Your task to perform on an android device: open app "Fetch Rewards" Image 0: 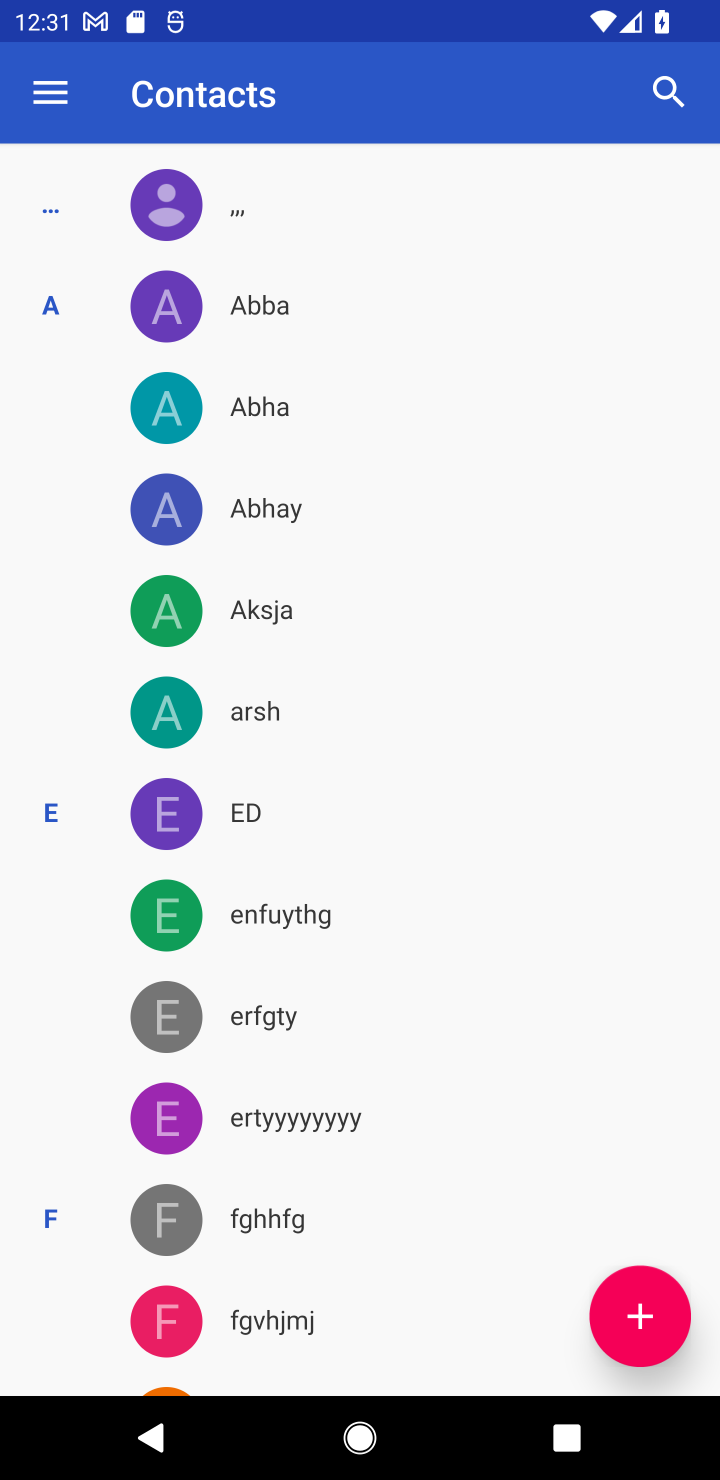
Step 0: press home button
Your task to perform on an android device: open app "Fetch Rewards" Image 1: 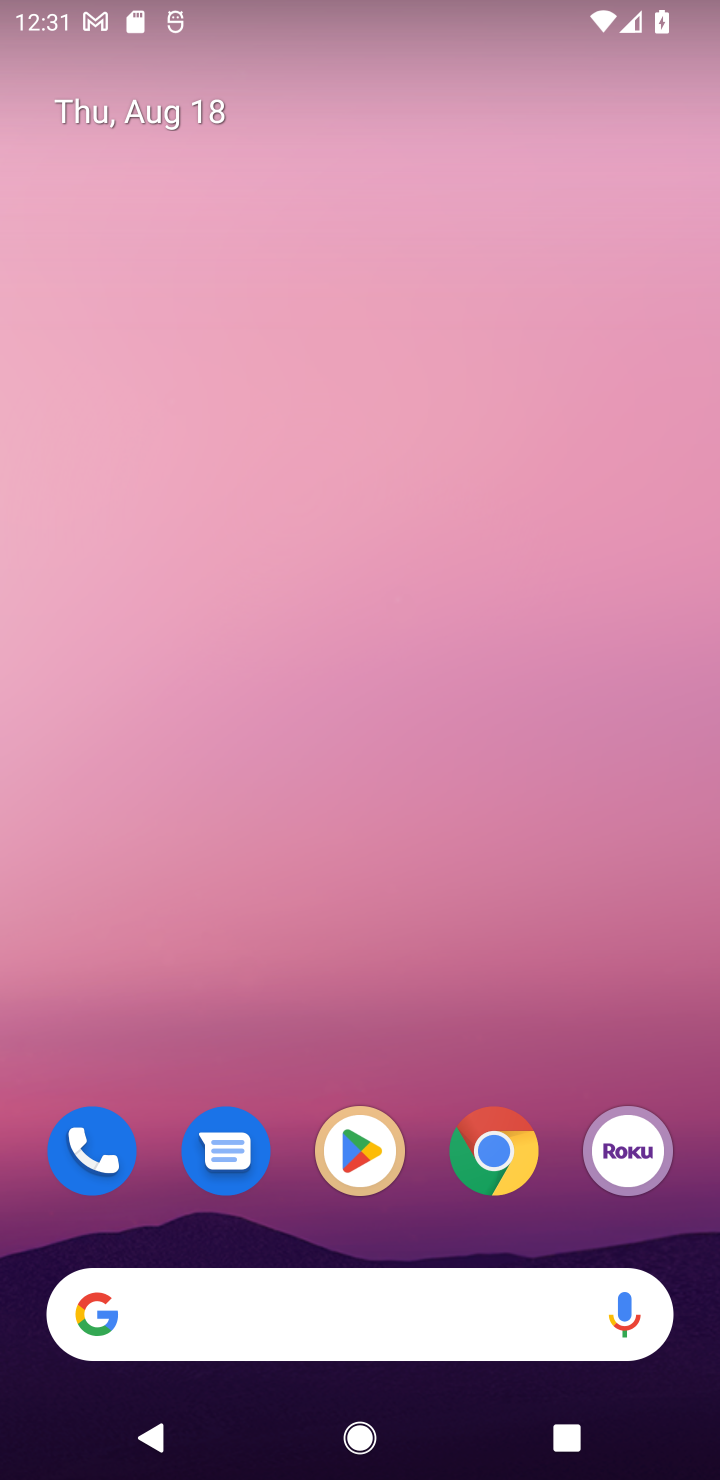
Step 1: click (347, 1152)
Your task to perform on an android device: open app "Fetch Rewards" Image 2: 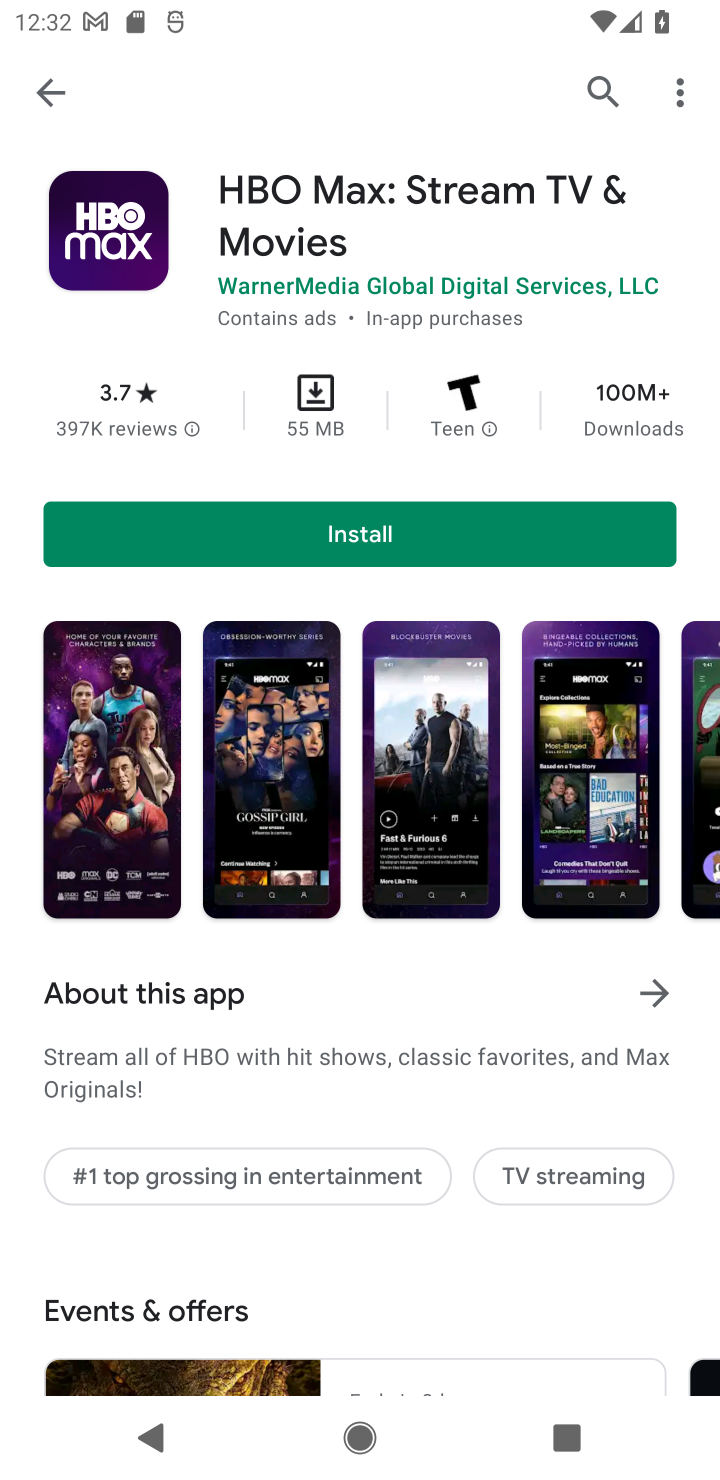
Step 2: click (52, 89)
Your task to perform on an android device: open app "Fetch Rewards" Image 3: 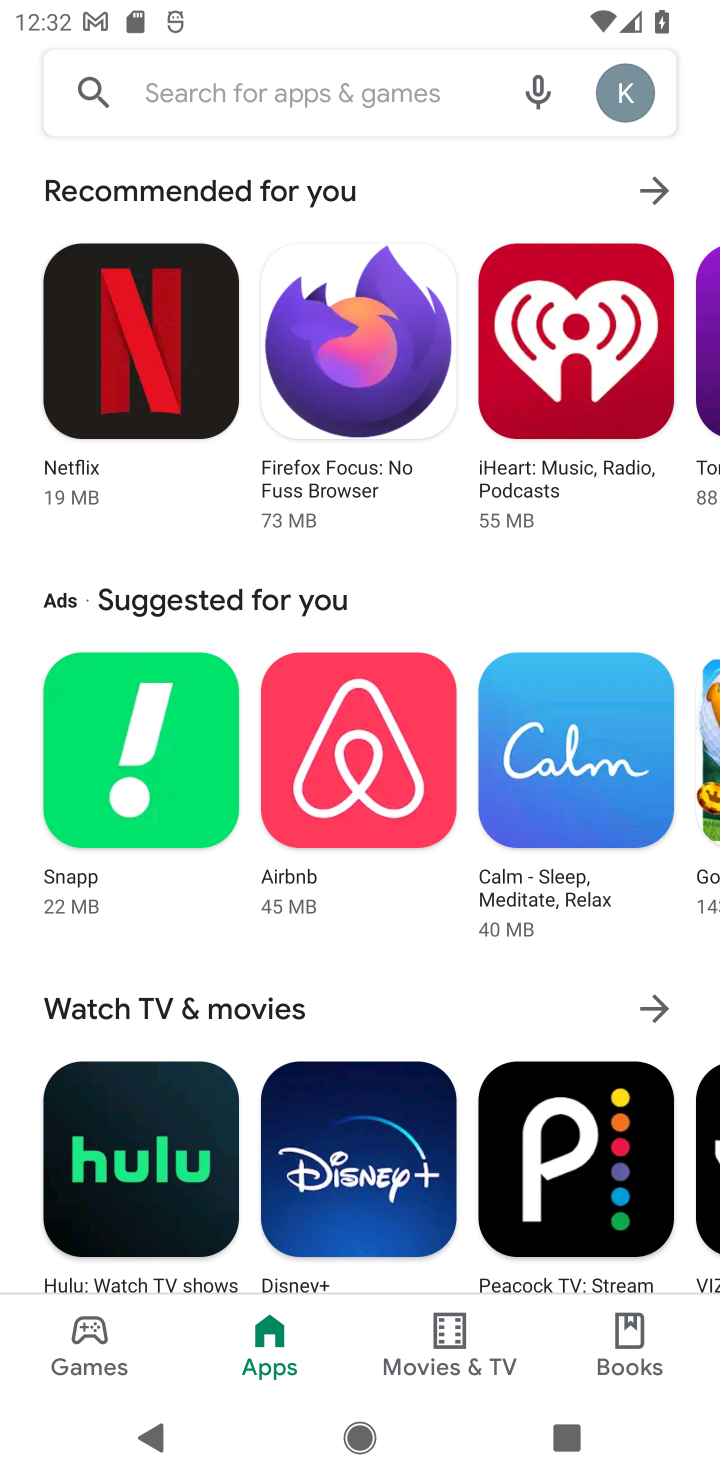
Step 3: click (171, 85)
Your task to perform on an android device: open app "Fetch Rewards" Image 4: 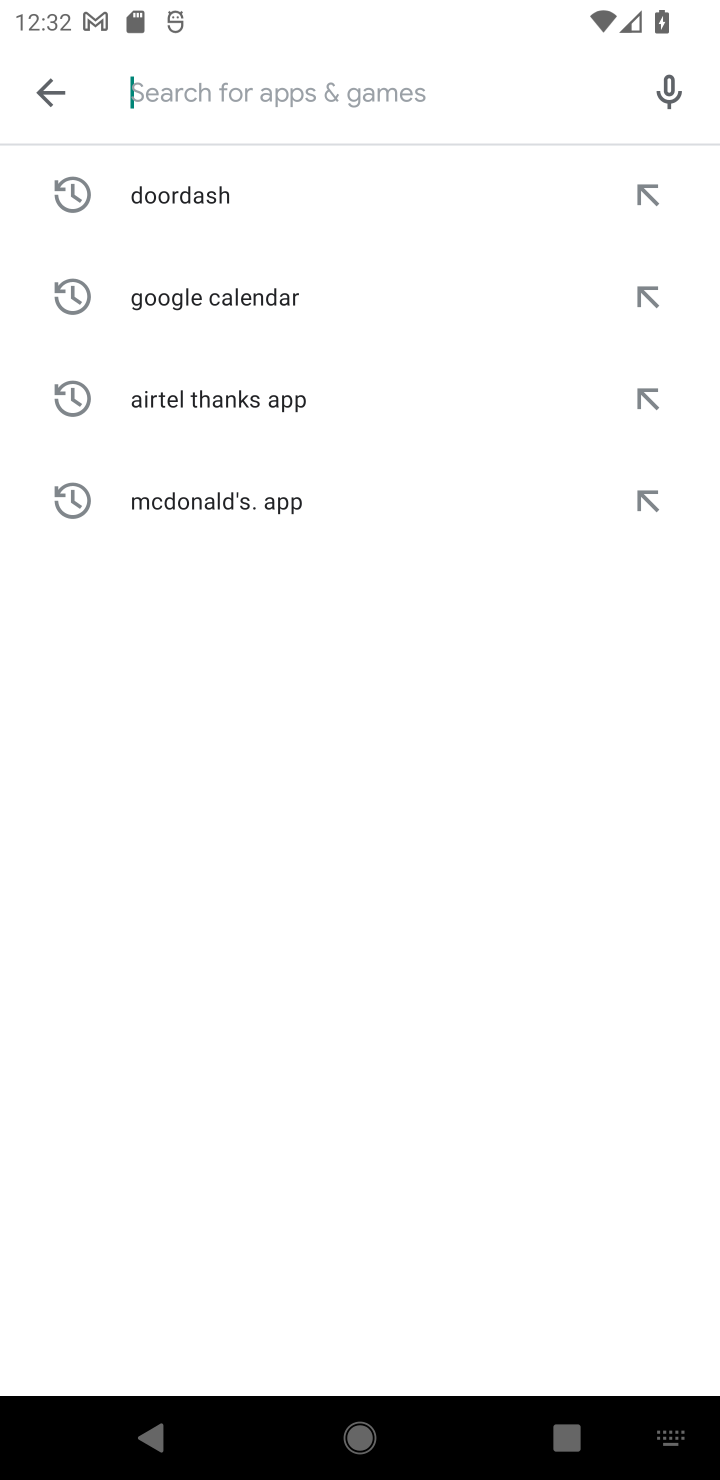
Step 4: type "Fetch Rewards"
Your task to perform on an android device: open app "Fetch Rewards" Image 5: 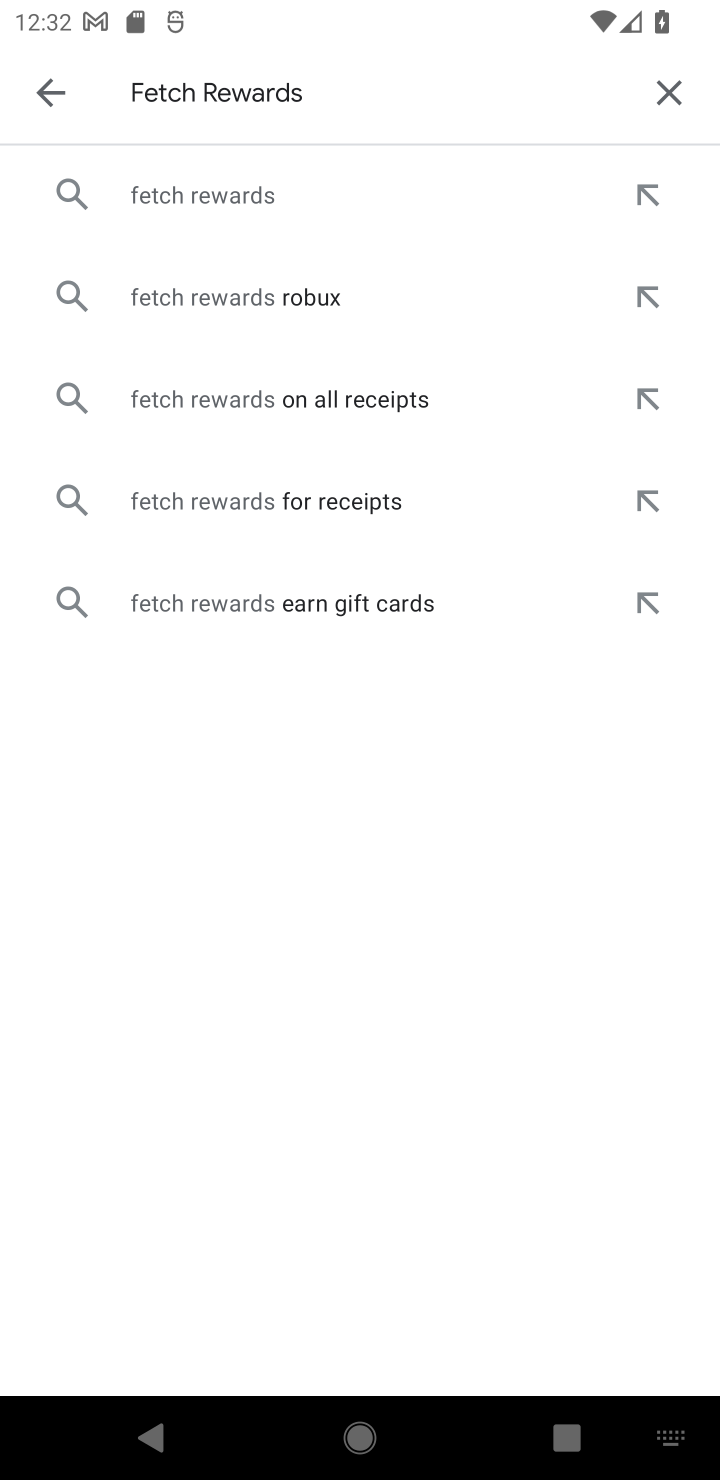
Step 5: click (259, 189)
Your task to perform on an android device: open app "Fetch Rewards" Image 6: 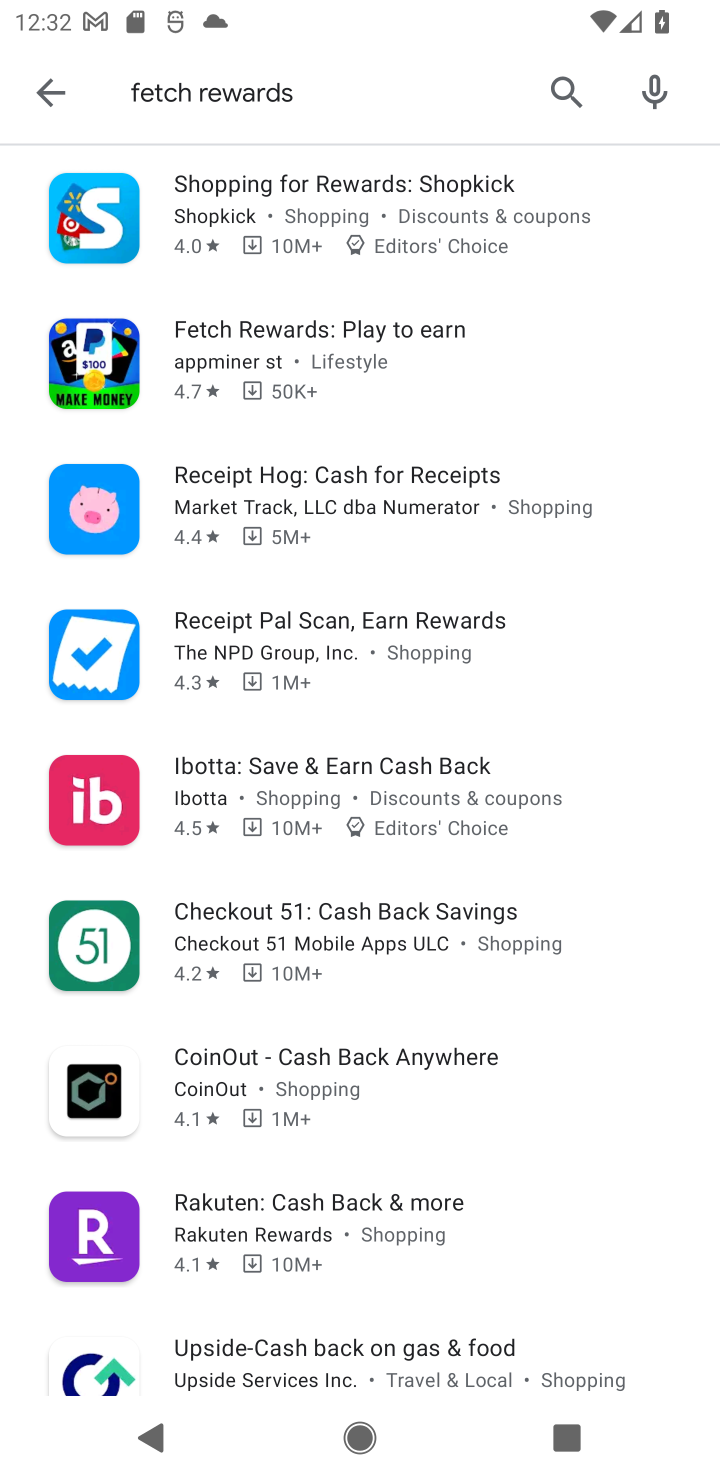
Step 6: click (214, 346)
Your task to perform on an android device: open app "Fetch Rewards" Image 7: 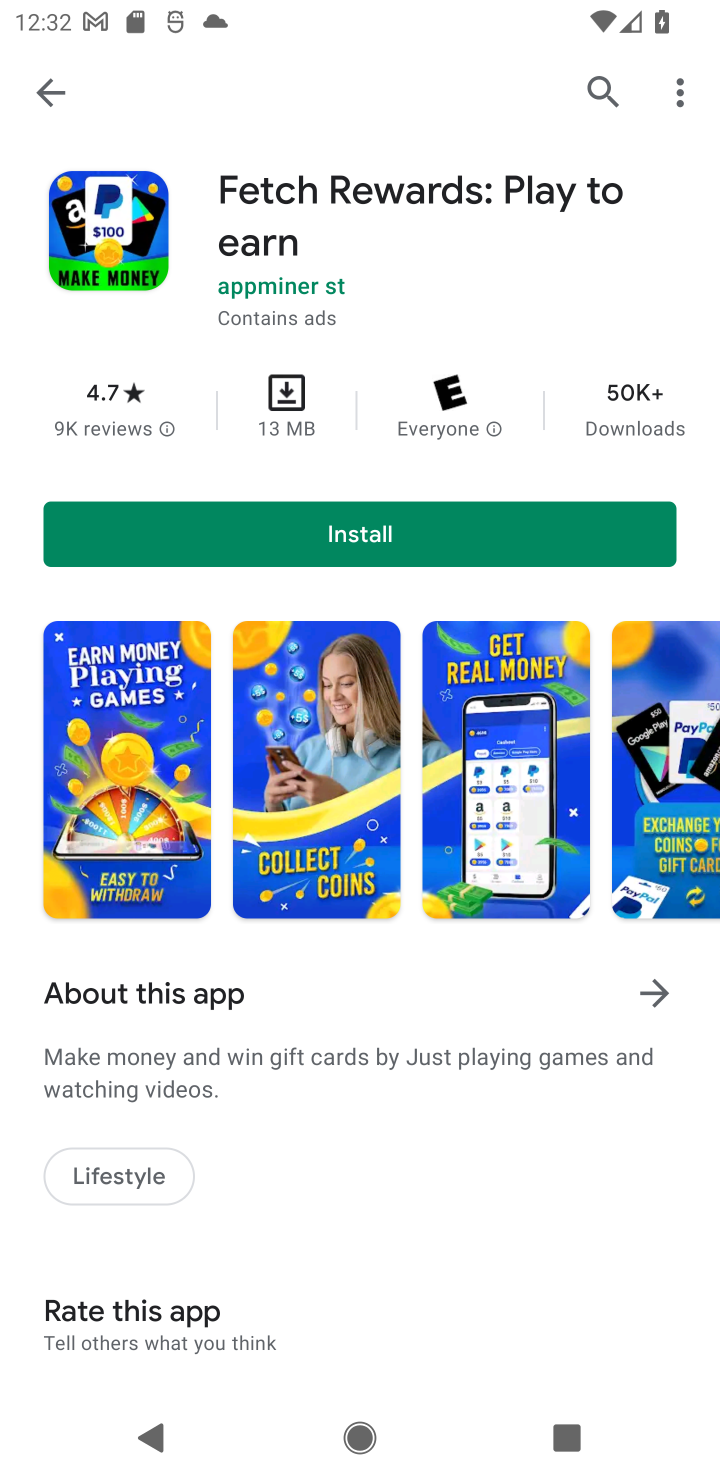
Step 7: click (364, 536)
Your task to perform on an android device: open app "Fetch Rewards" Image 8: 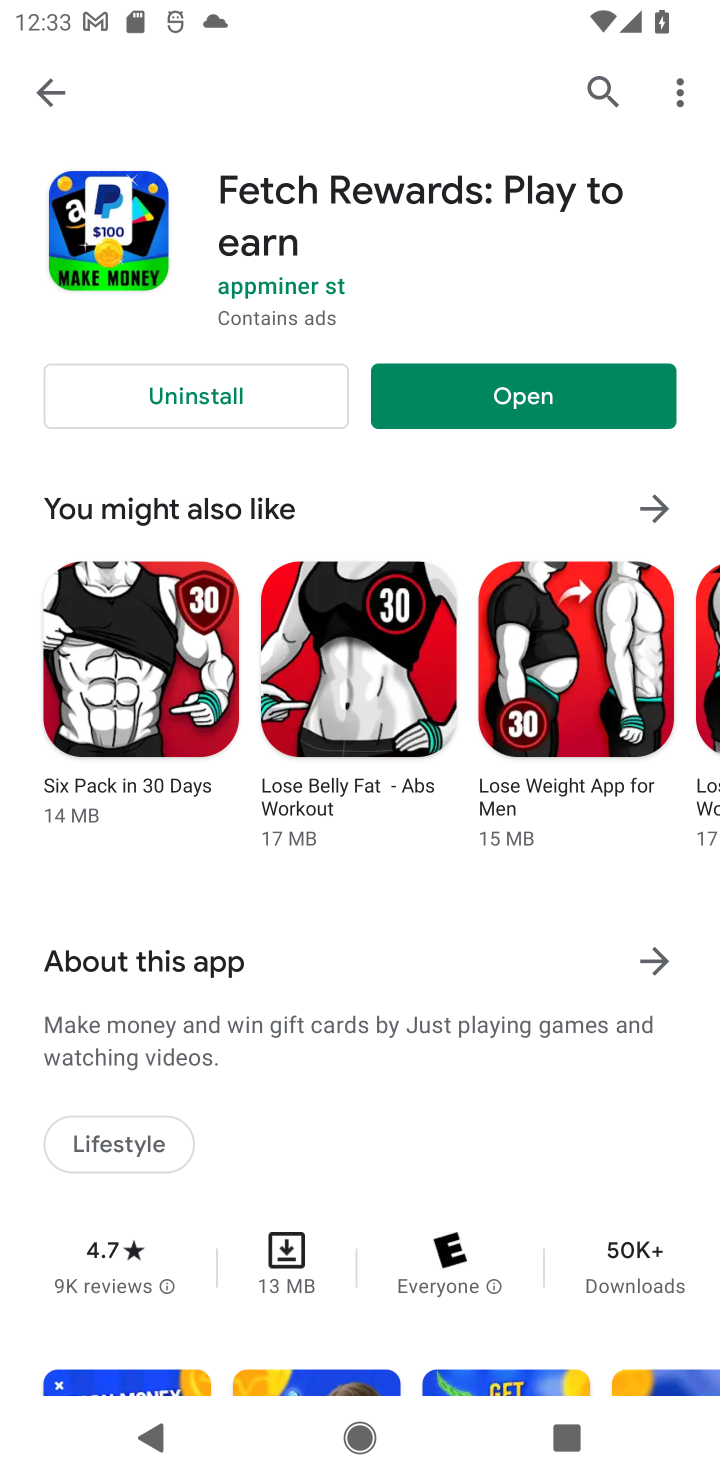
Step 8: click (480, 403)
Your task to perform on an android device: open app "Fetch Rewards" Image 9: 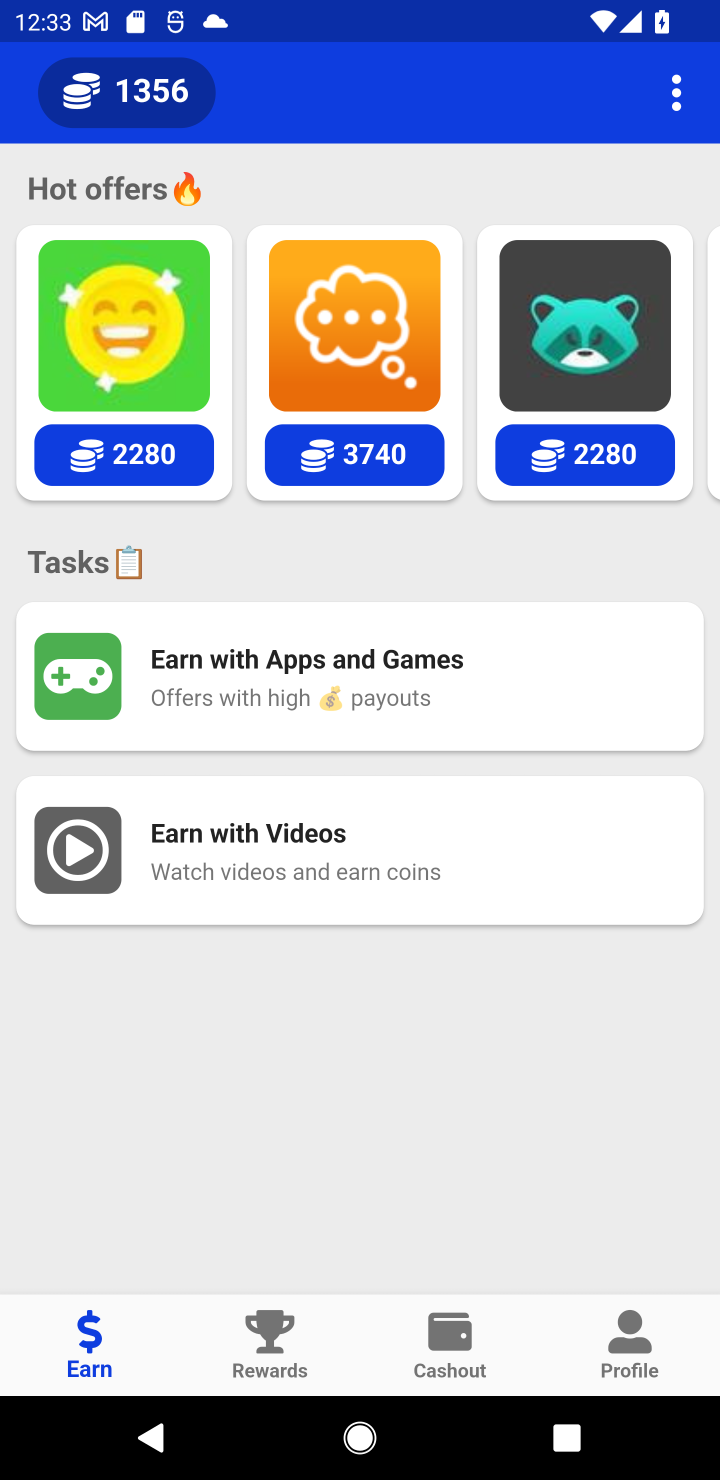
Step 9: task complete